Your task to perform on an android device: open app "Expedia: Hotels, Flights & Car" (install if not already installed) Image 0: 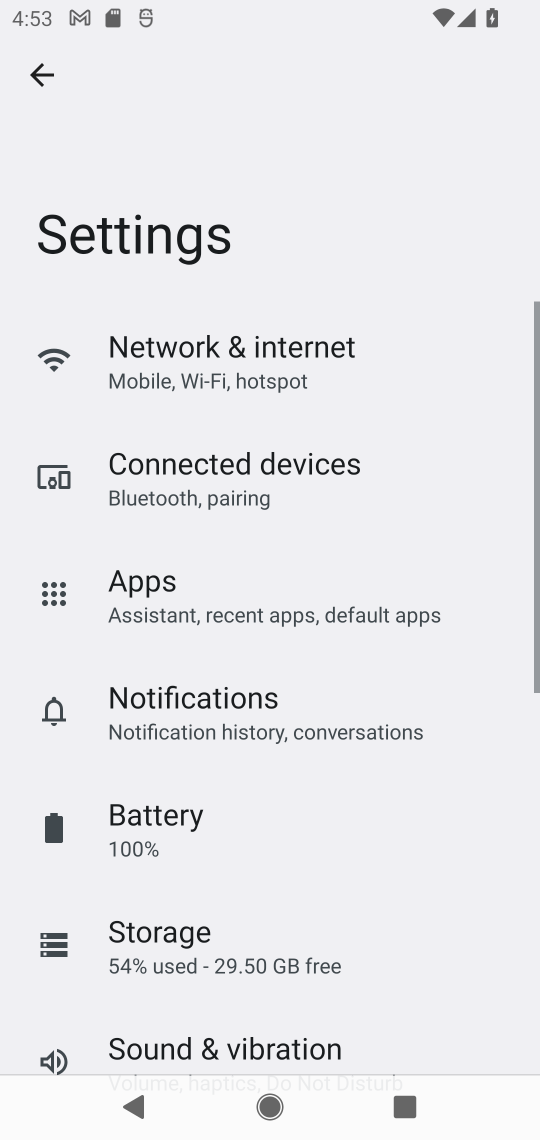
Step 0: press home button
Your task to perform on an android device: open app "Expedia: Hotels, Flights & Car" (install if not already installed) Image 1: 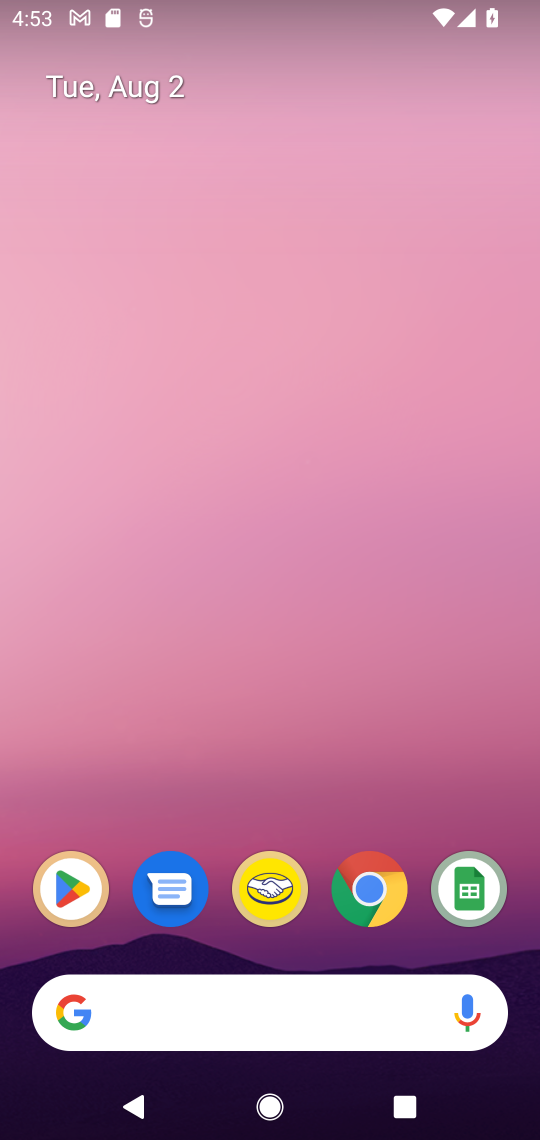
Step 1: drag from (396, 623) to (363, 73)
Your task to perform on an android device: open app "Expedia: Hotels, Flights & Car" (install if not already installed) Image 2: 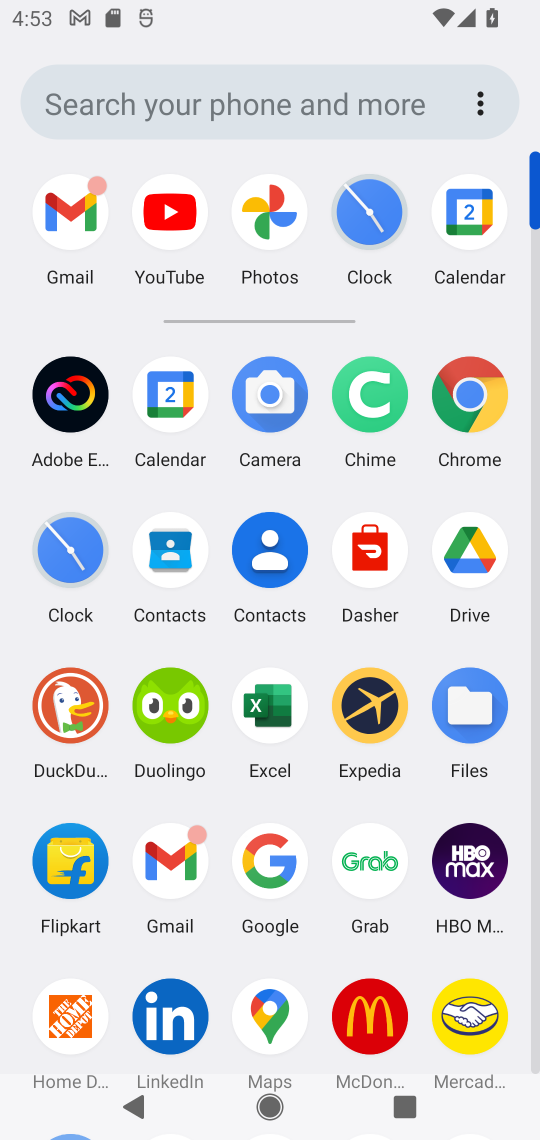
Step 2: drag from (503, 951) to (504, 415)
Your task to perform on an android device: open app "Expedia: Hotels, Flights & Car" (install if not already installed) Image 3: 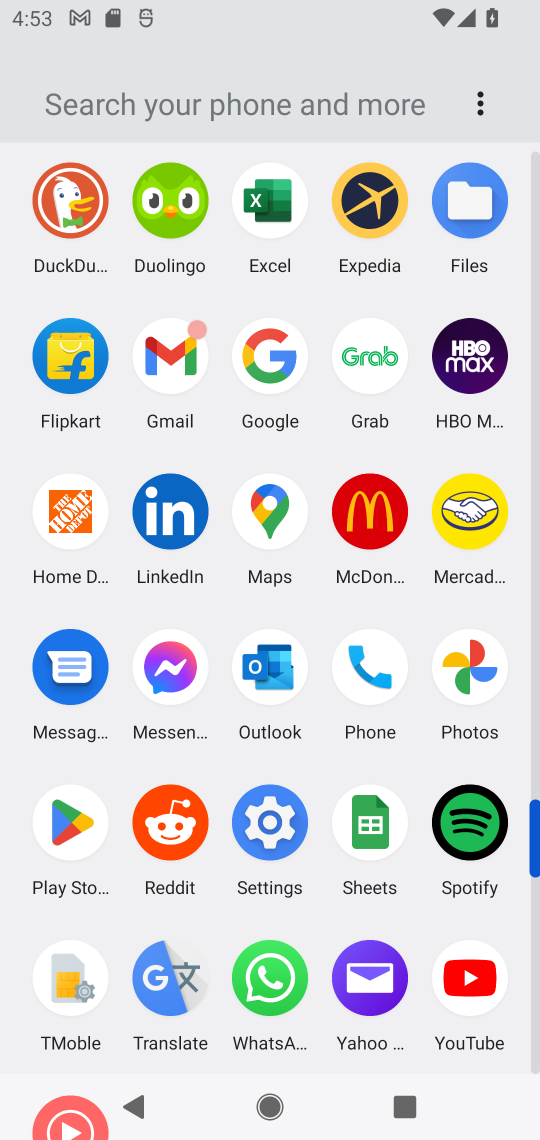
Step 3: click (71, 842)
Your task to perform on an android device: open app "Expedia: Hotels, Flights & Car" (install if not already installed) Image 4: 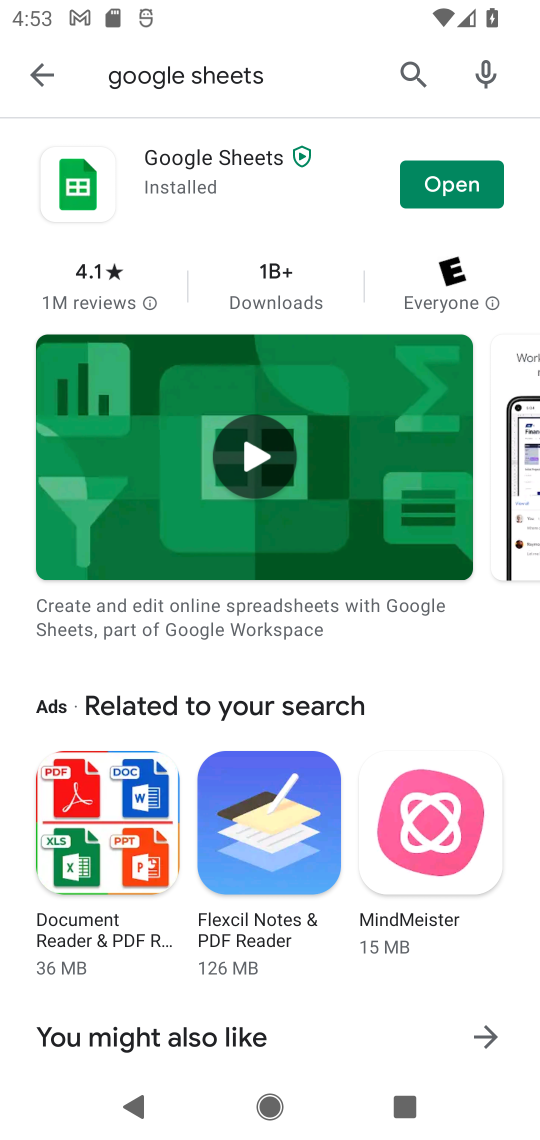
Step 4: click (410, 64)
Your task to perform on an android device: open app "Expedia: Hotels, Flights & Car" (install if not already installed) Image 5: 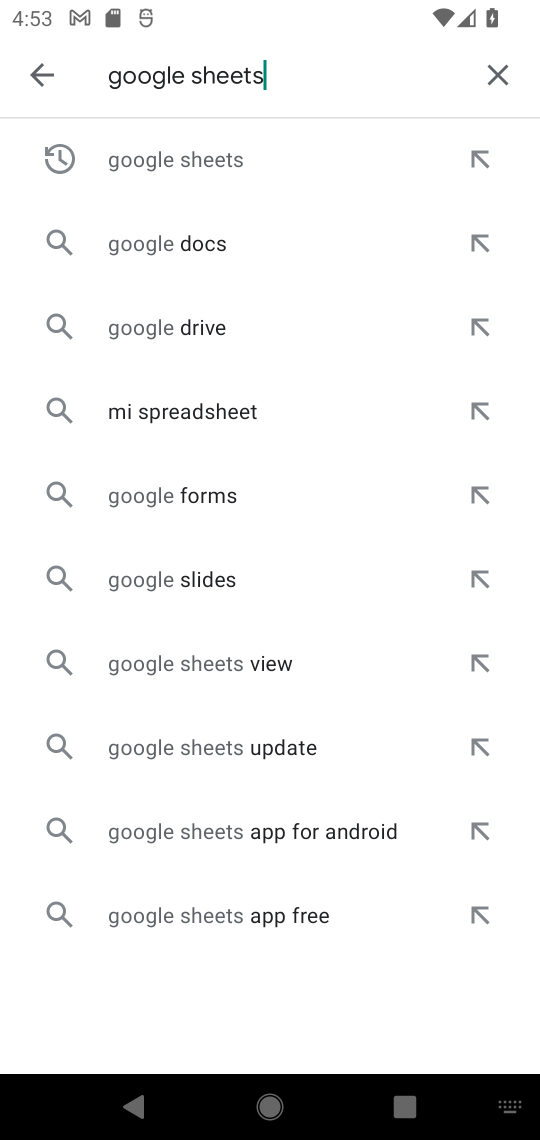
Step 5: click (502, 67)
Your task to perform on an android device: open app "Expedia: Hotels, Flights & Car" (install if not already installed) Image 6: 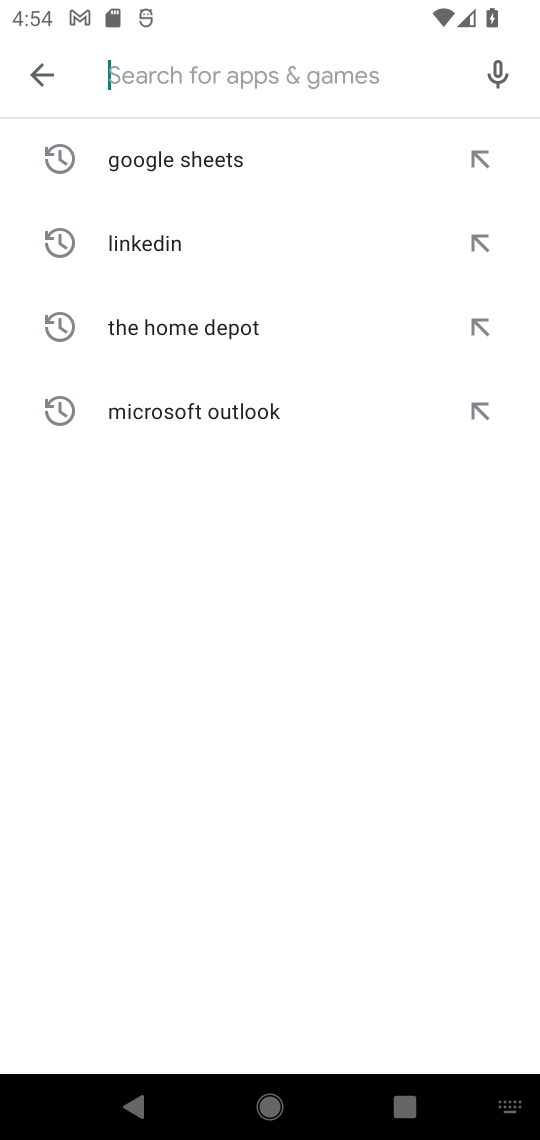
Step 6: type "Expedia: Hotels, Flights & Car"
Your task to perform on an android device: open app "Expedia: Hotels, Flights & Car" (install if not already installed) Image 7: 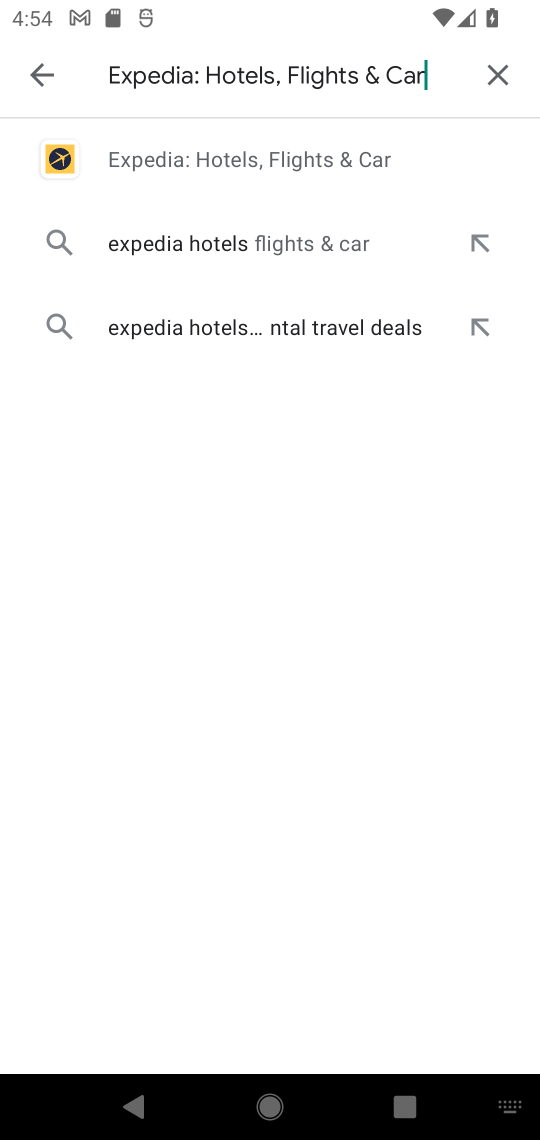
Step 7: click (348, 159)
Your task to perform on an android device: open app "Expedia: Hotels, Flights & Car" (install if not already installed) Image 8: 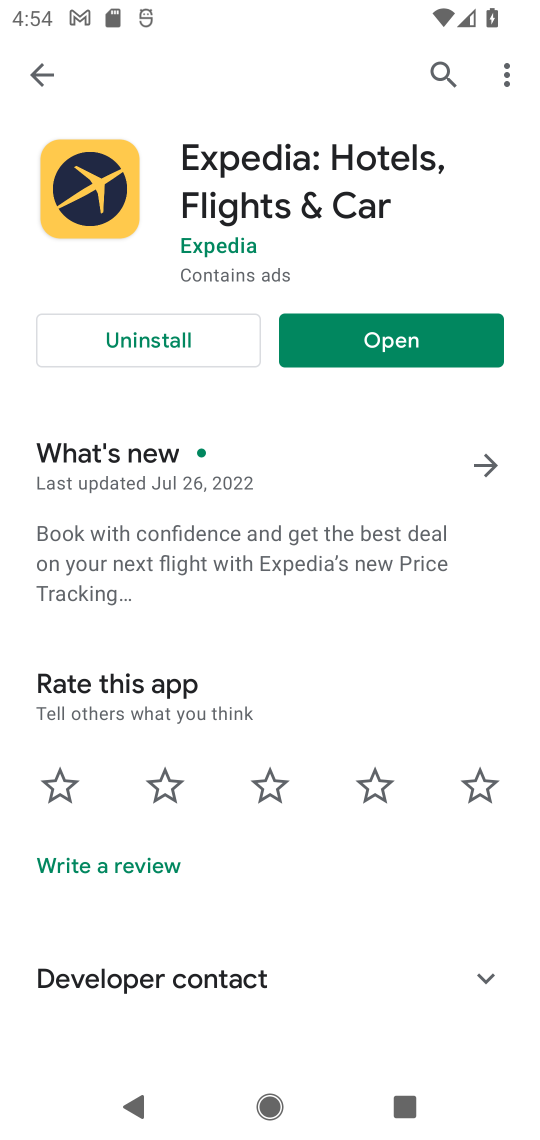
Step 8: click (414, 344)
Your task to perform on an android device: open app "Expedia: Hotels, Flights & Car" (install if not already installed) Image 9: 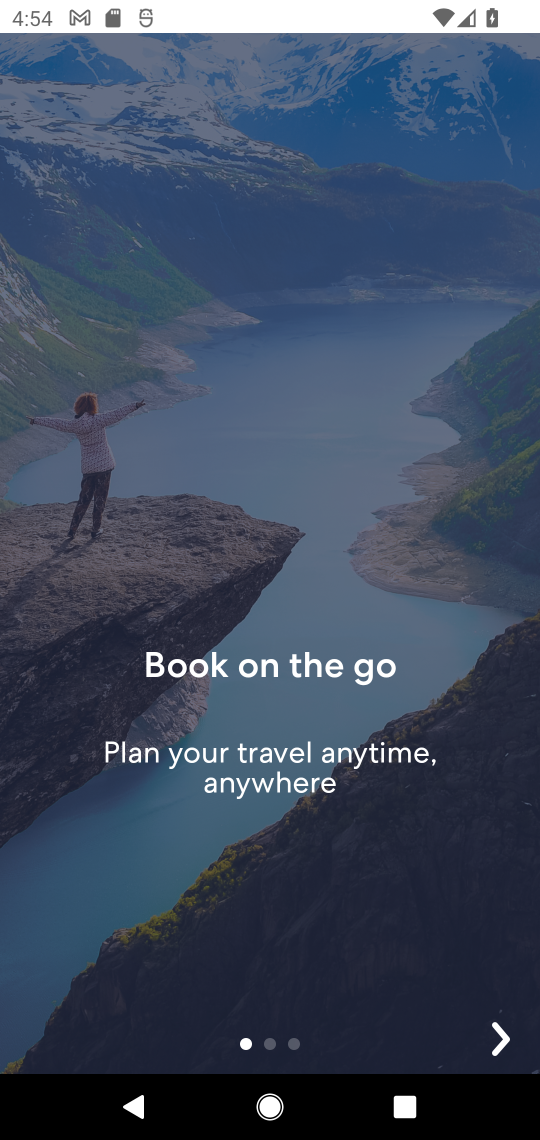
Step 9: task complete